Your task to perform on an android device: toggle show notifications on the lock screen Image 0: 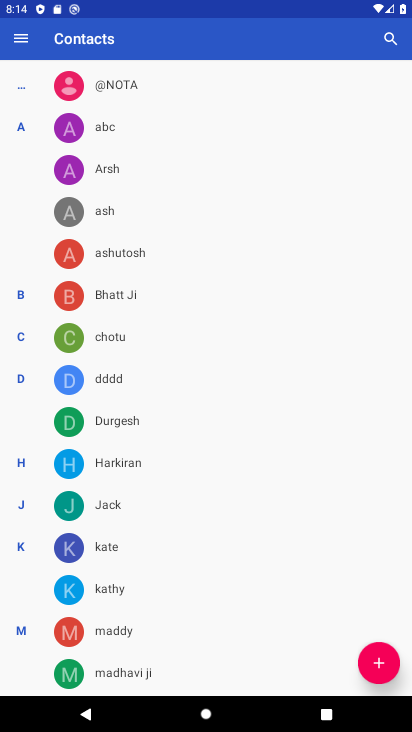
Step 0: press back button
Your task to perform on an android device: toggle show notifications on the lock screen Image 1: 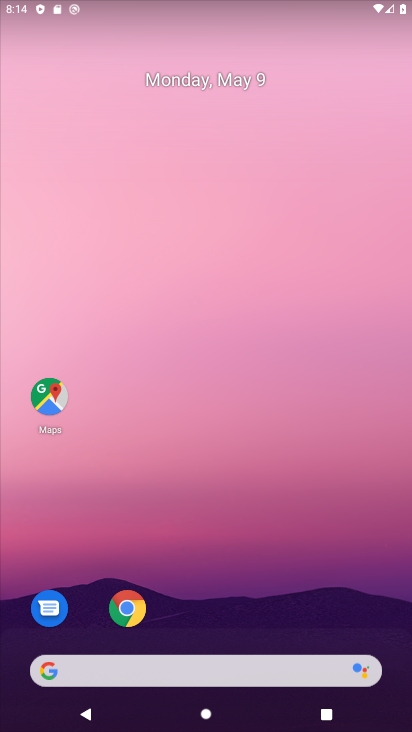
Step 1: drag from (186, 660) to (360, 19)
Your task to perform on an android device: toggle show notifications on the lock screen Image 2: 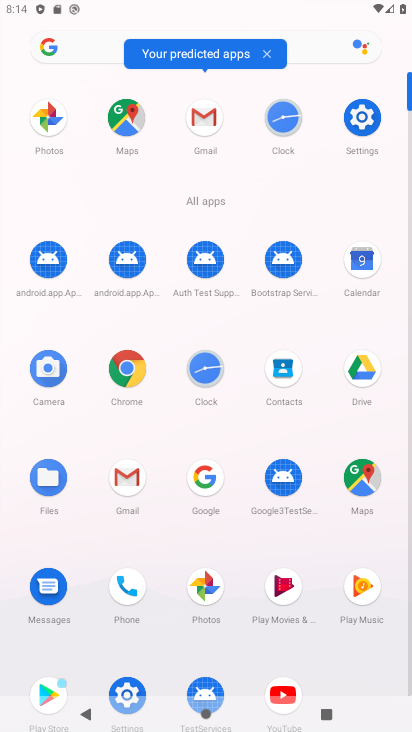
Step 2: click (136, 686)
Your task to perform on an android device: toggle show notifications on the lock screen Image 3: 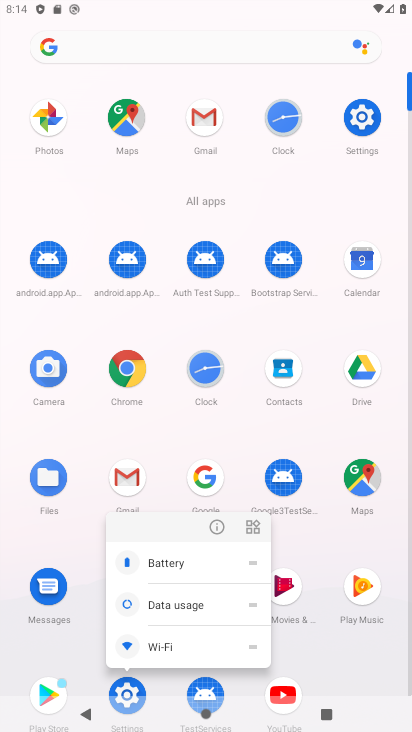
Step 3: click (126, 689)
Your task to perform on an android device: toggle show notifications on the lock screen Image 4: 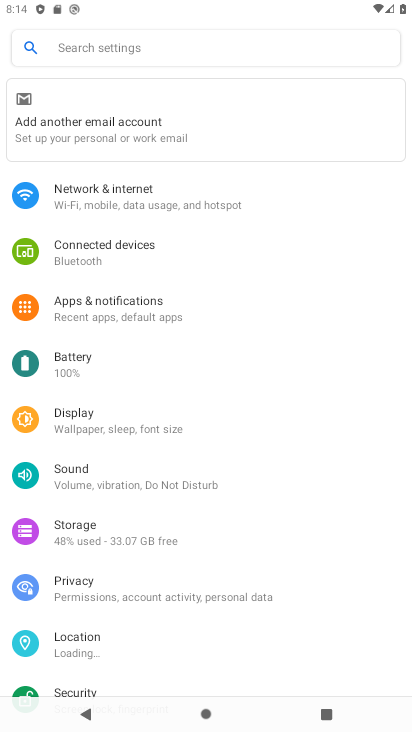
Step 4: click (139, 315)
Your task to perform on an android device: toggle show notifications on the lock screen Image 5: 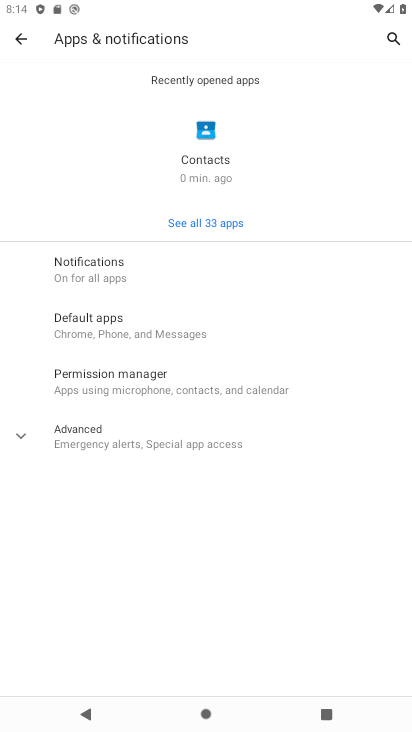
Step 5: click (129, 264)
Your task to perform on an android device: toggle show notifications on the lock screen Image 6: 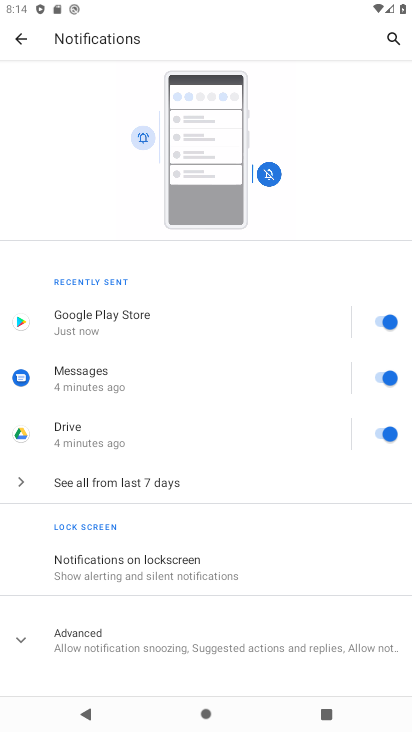
Step 6: click (136, 565)
Your task to perform on an android device: toggle show notifications on the lock screen Image 7: 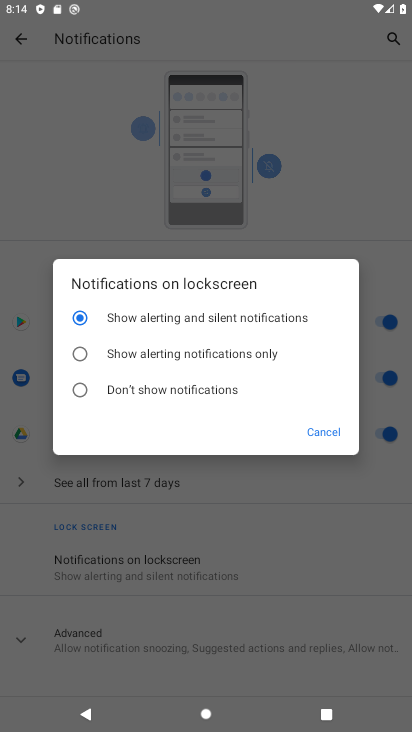
Step 7: task complete